Your task to perform on an android device: change the clock display to analog Image 0: 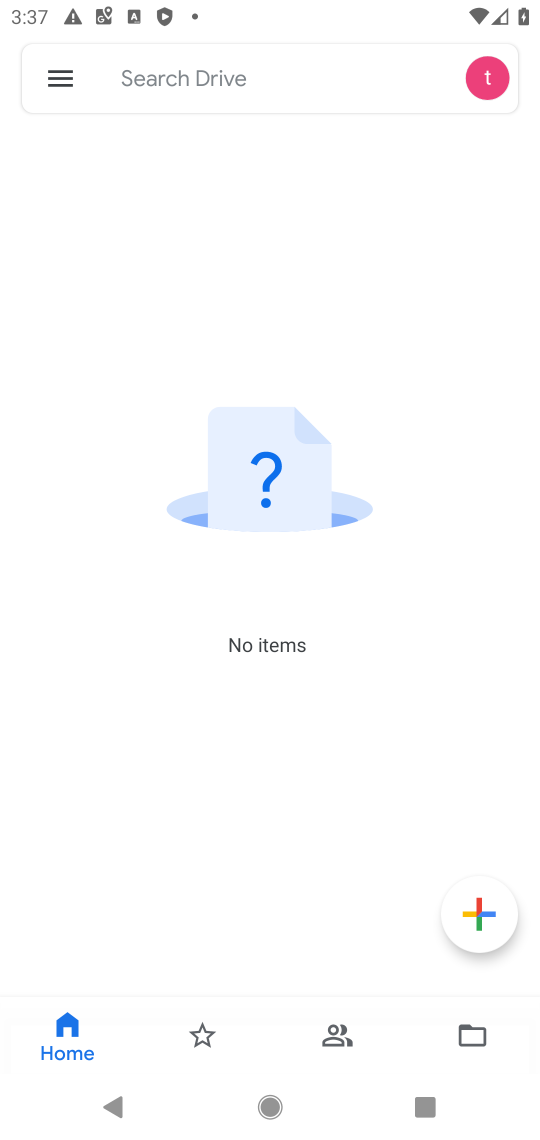
Step 0: press back button
Your task to perform on an android device: change the clock display to analog Image 1: 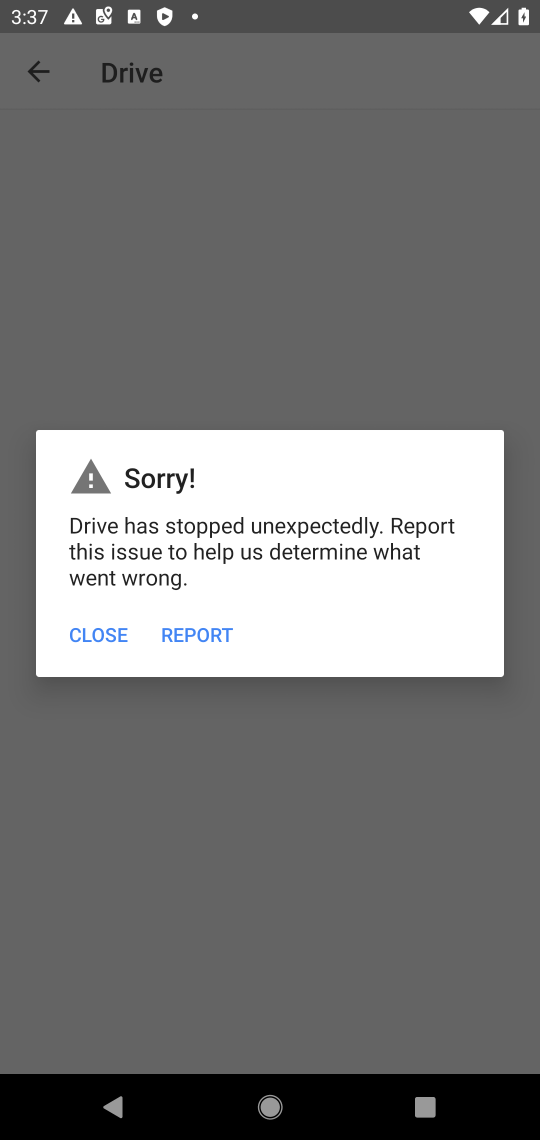
Step 1: press back button
Your task to perform on an android device: change the clock display to analog Image 2: 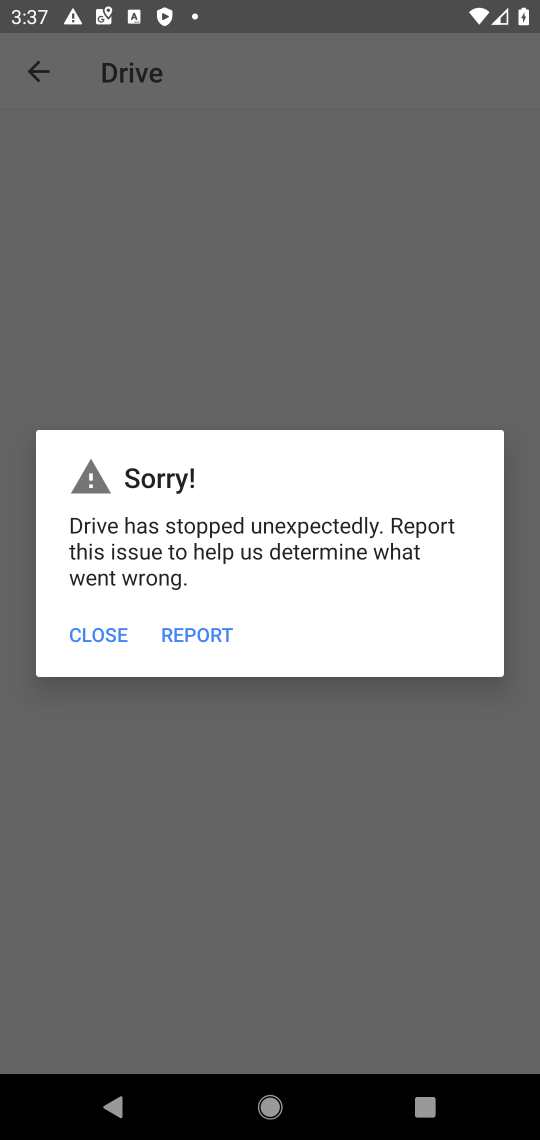
Step 2: press home button
Your task to perform on an android device: change the clock display to analog Image 3: 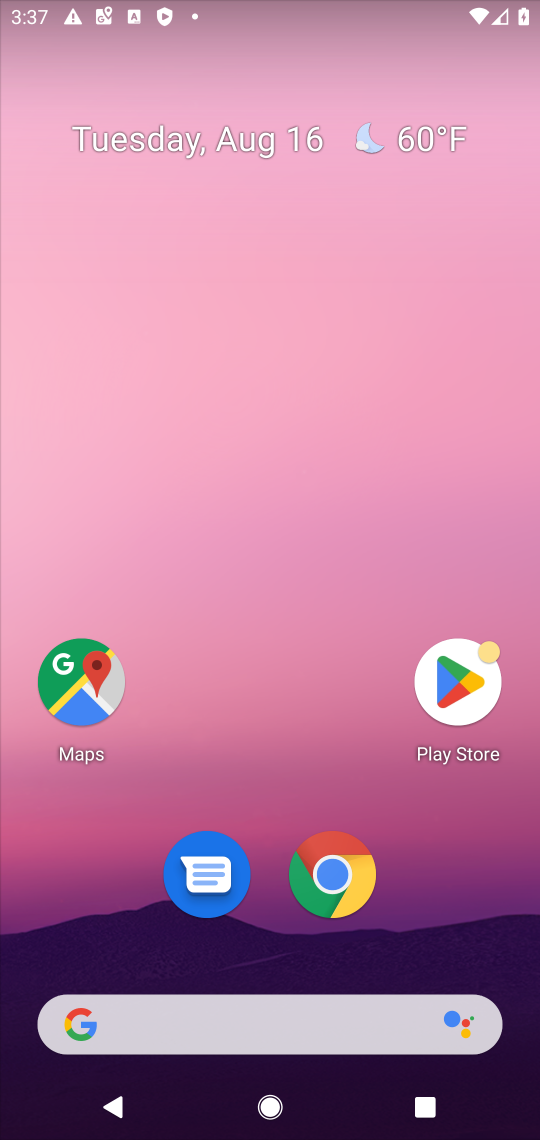
Step 3: drag from (237, 844) to (107, 221)
Your task to perform on an android device: change the clock display to analog Image 4: 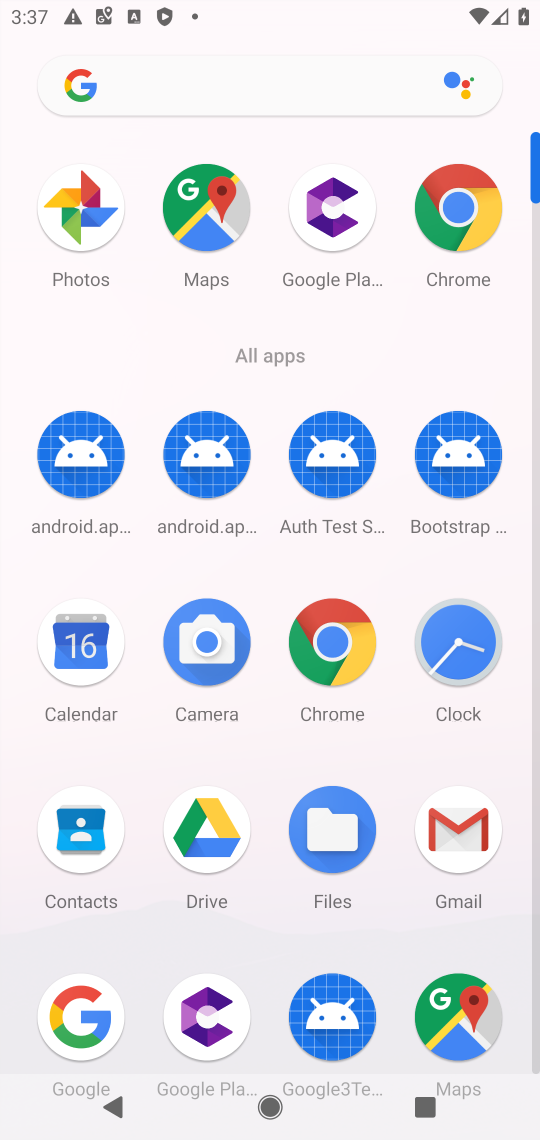
Step 4: click (438, 628)
Your task to perform on an android device: change the clock display to analog Image 5: 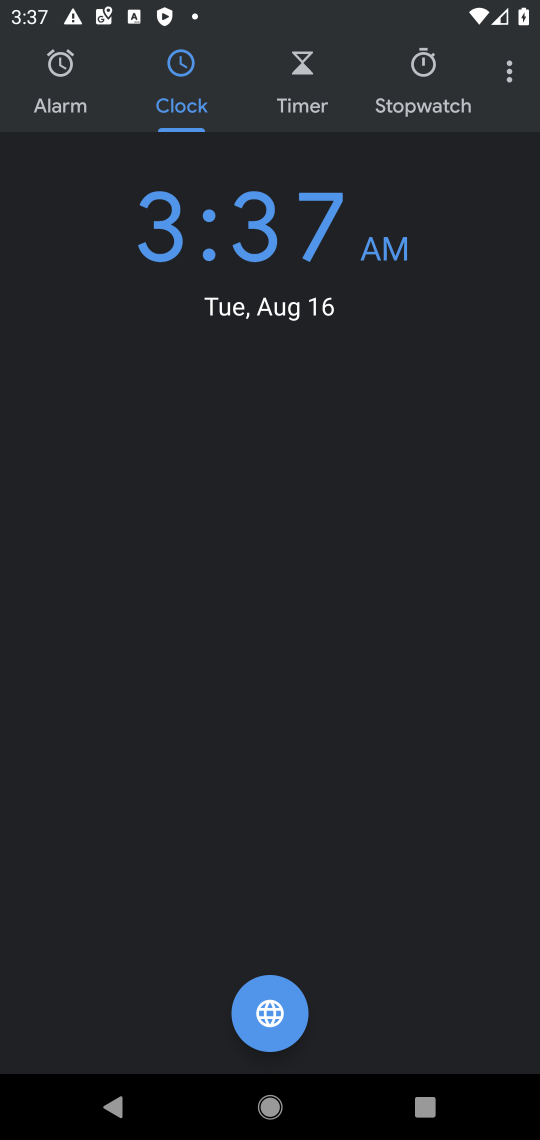
Step 5: click (507, 85)
Your task to perform on an android device: change the clock display to analog Image 6: 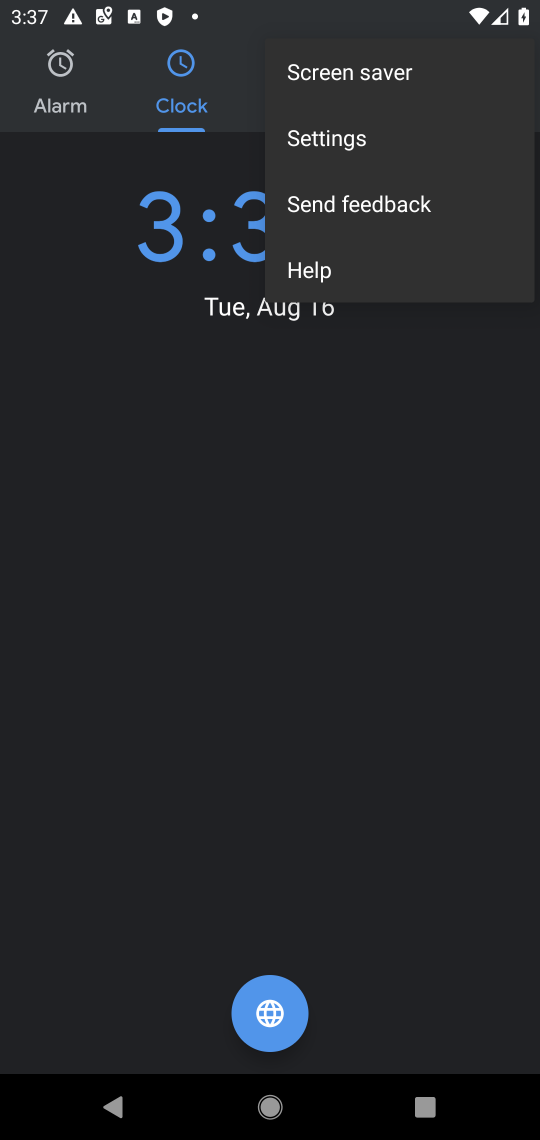
Step 6: click (347, 131)
Your task to perform on an android device: change the clock display to analog Image 7: 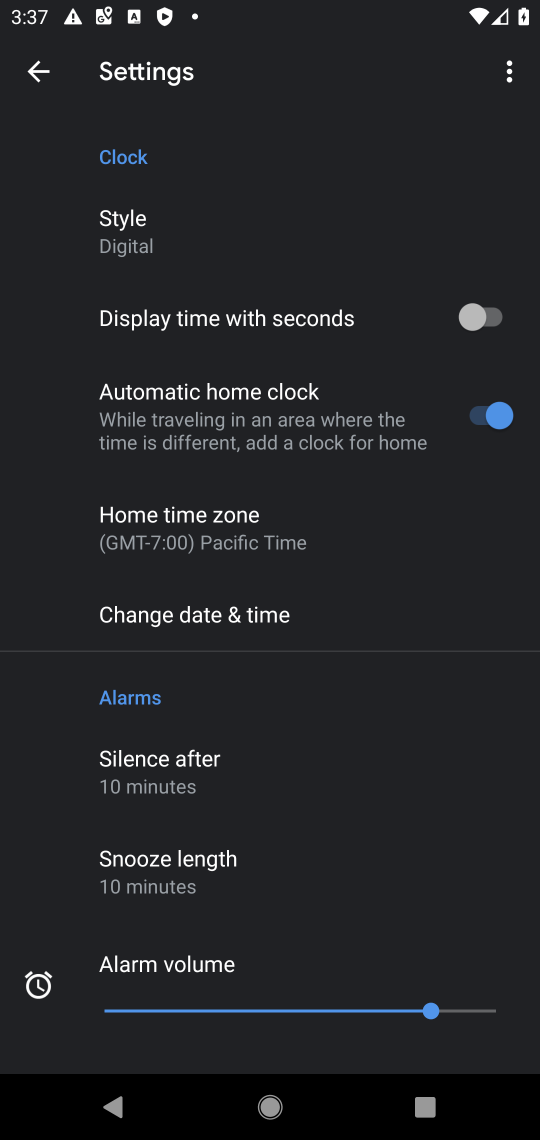
Step 7: drag from (464, 877) to (419, 382)
Your task to perform on an android device: change the clock display to analog Image 8: 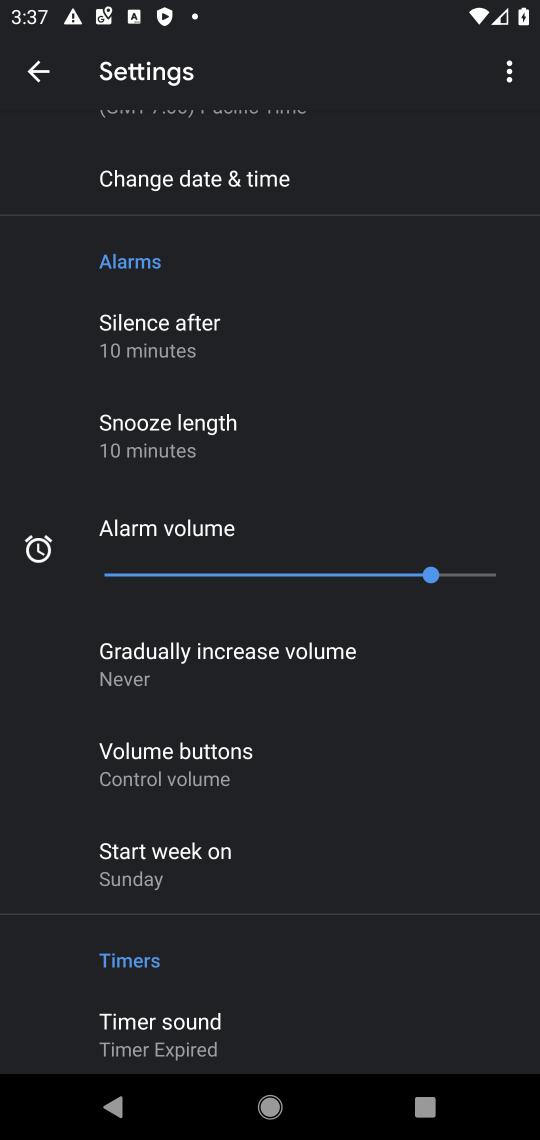
Step 8: drag from (331, 938) to (304, 310)
Your task to perform on an android device: change the clock display to analog Image 9: 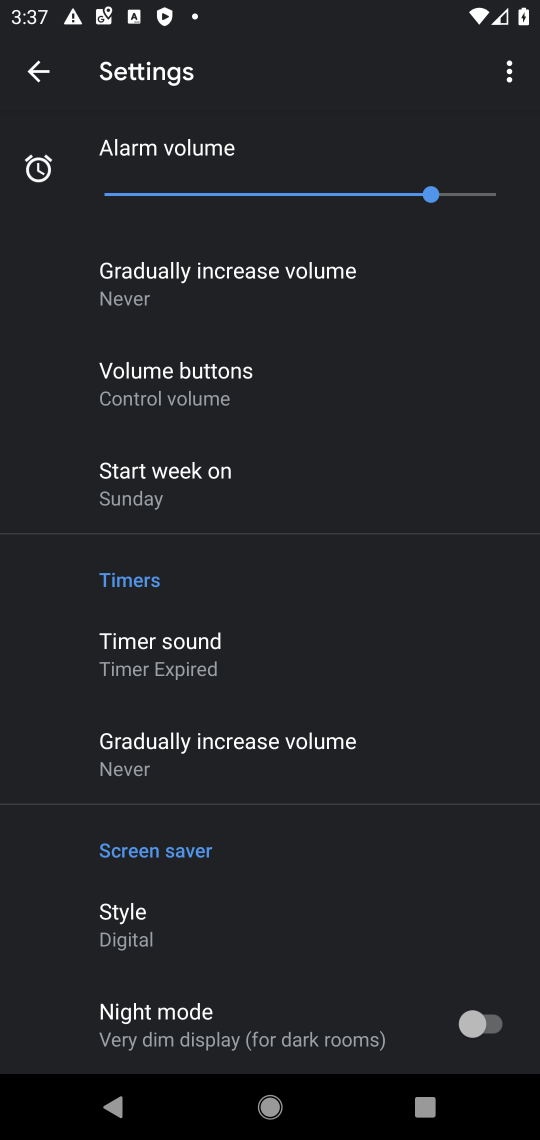
Step 9: click (129, 917)
Your task to perform on an android device: change the clock display to analog Image 10: 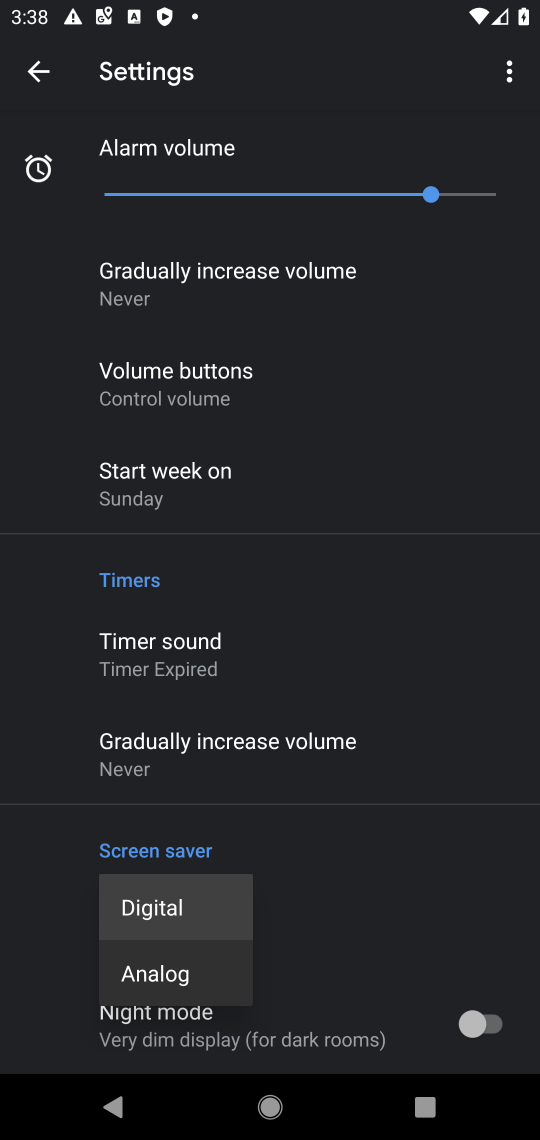
Step 10: click (143, 975)
Your task to perform on an android device: change the clock display to analog Image 11: 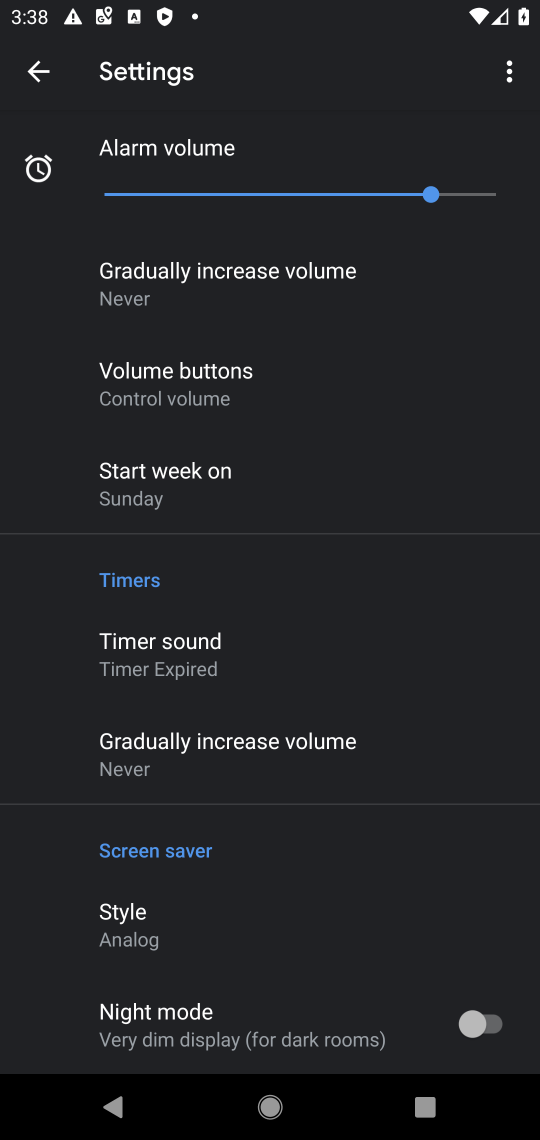
Step 11: task complete